Your task to perform on an android device: uninstall "Adobe Acrobat Reader: Edit PDF" Image 0: 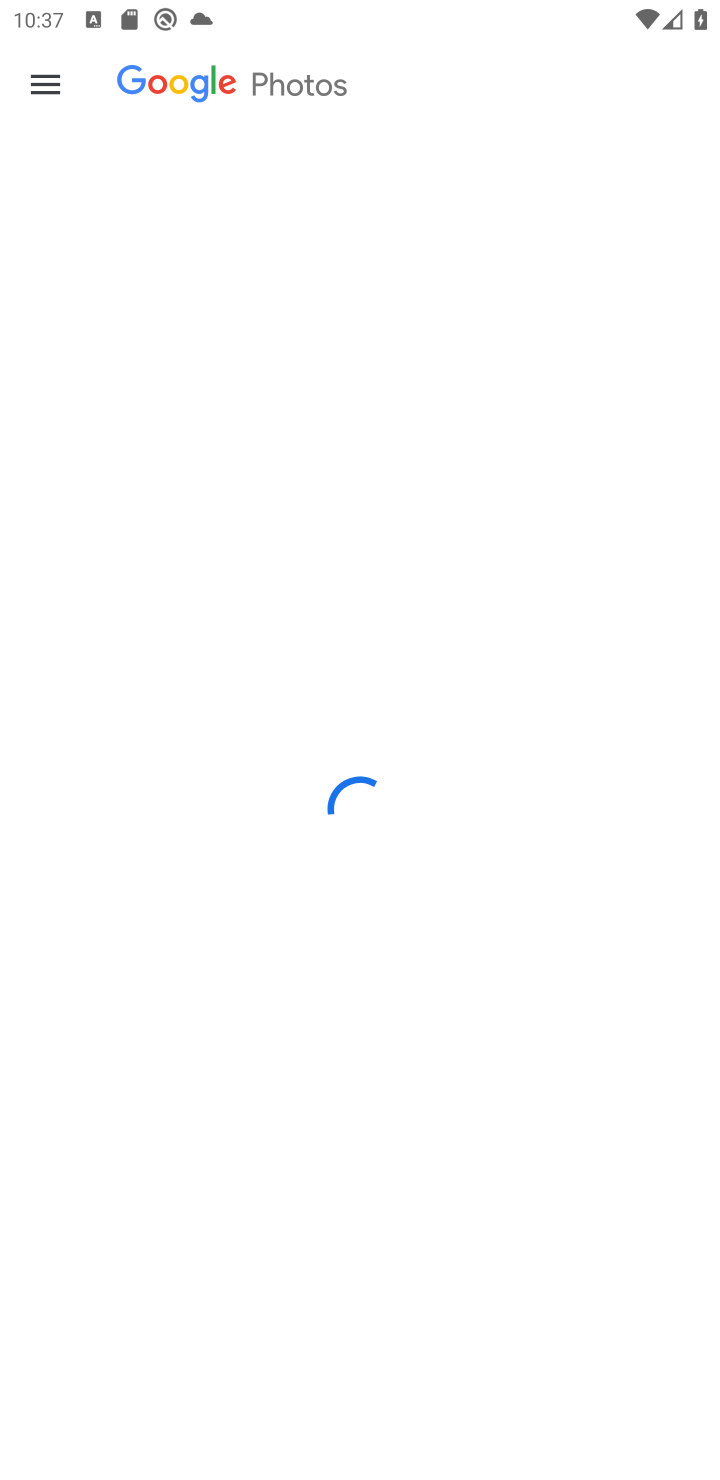
Step 0: press home button
Your task to perform on an android device: uninstall "Adobe Acrobat Reader: Edit PDF" Image 1: 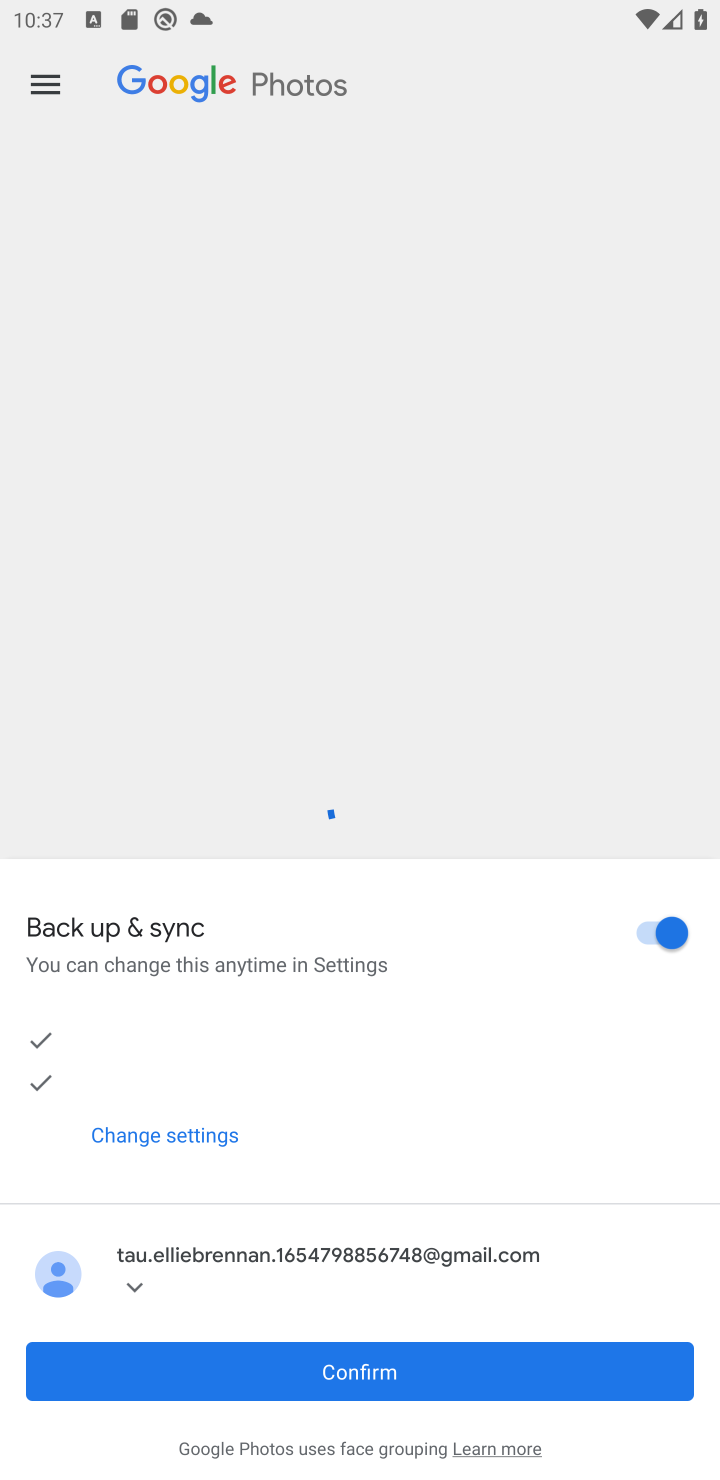
Step 1: press home button
Your task to perform on an android device: uninstall "Adobe Acrobat Reader: Edit PDF" Image 2: 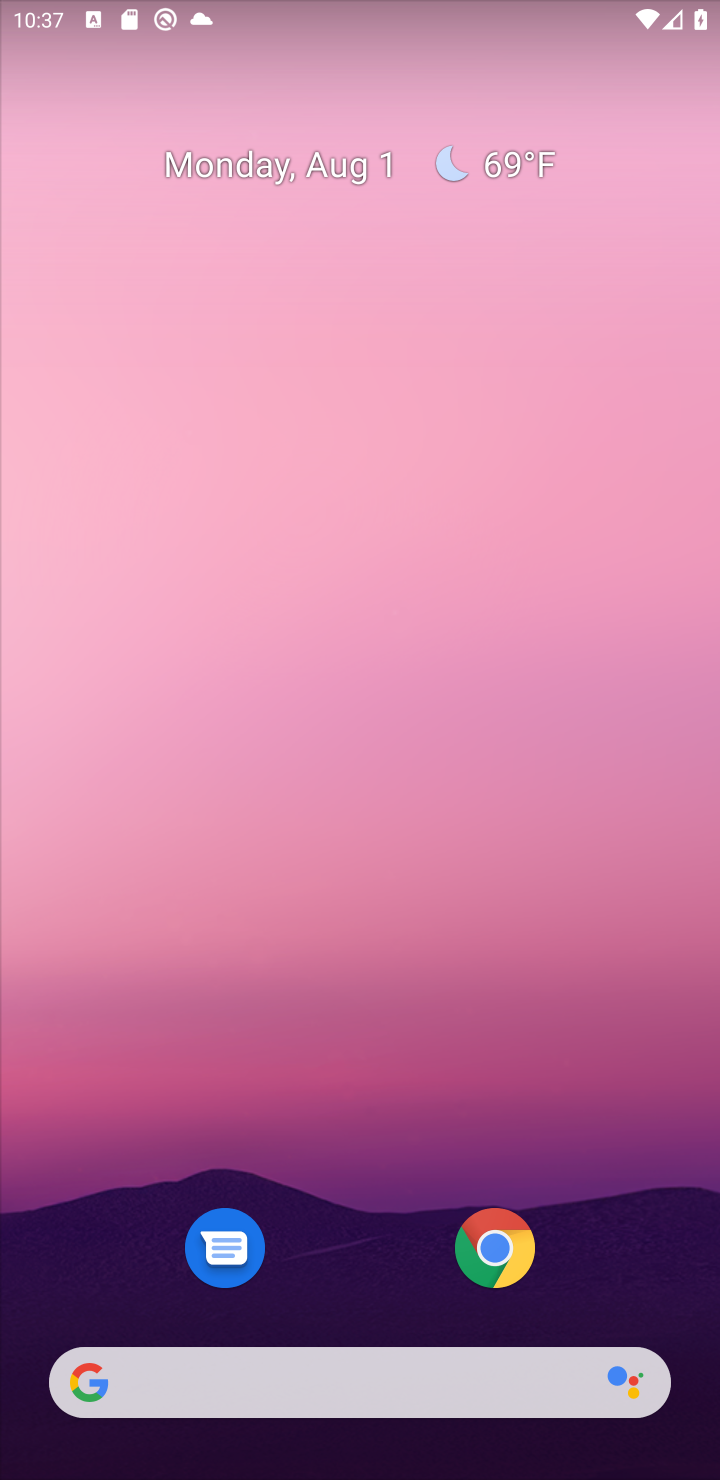
Step 2: drag from (400, 1273) to (435, 152)
Your task to perform on an android device: uninstall "Adobe Acrobat Reader: Edit PDF" Image 3: 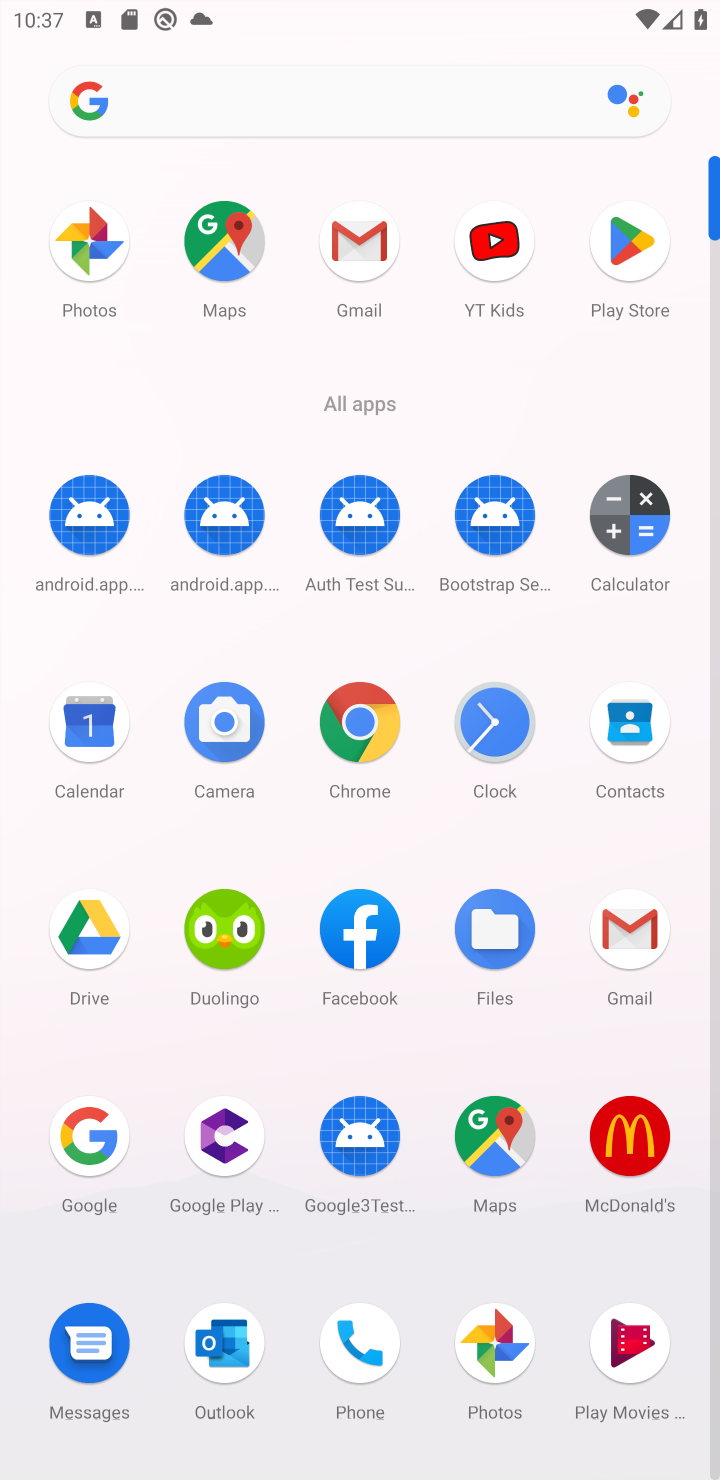
Step 3: drag from (291, 1252) to (294, 387)
Your task to perform on an android device: uninstall "Adobe Acrobat Reader: Edit PDF" Image 4: 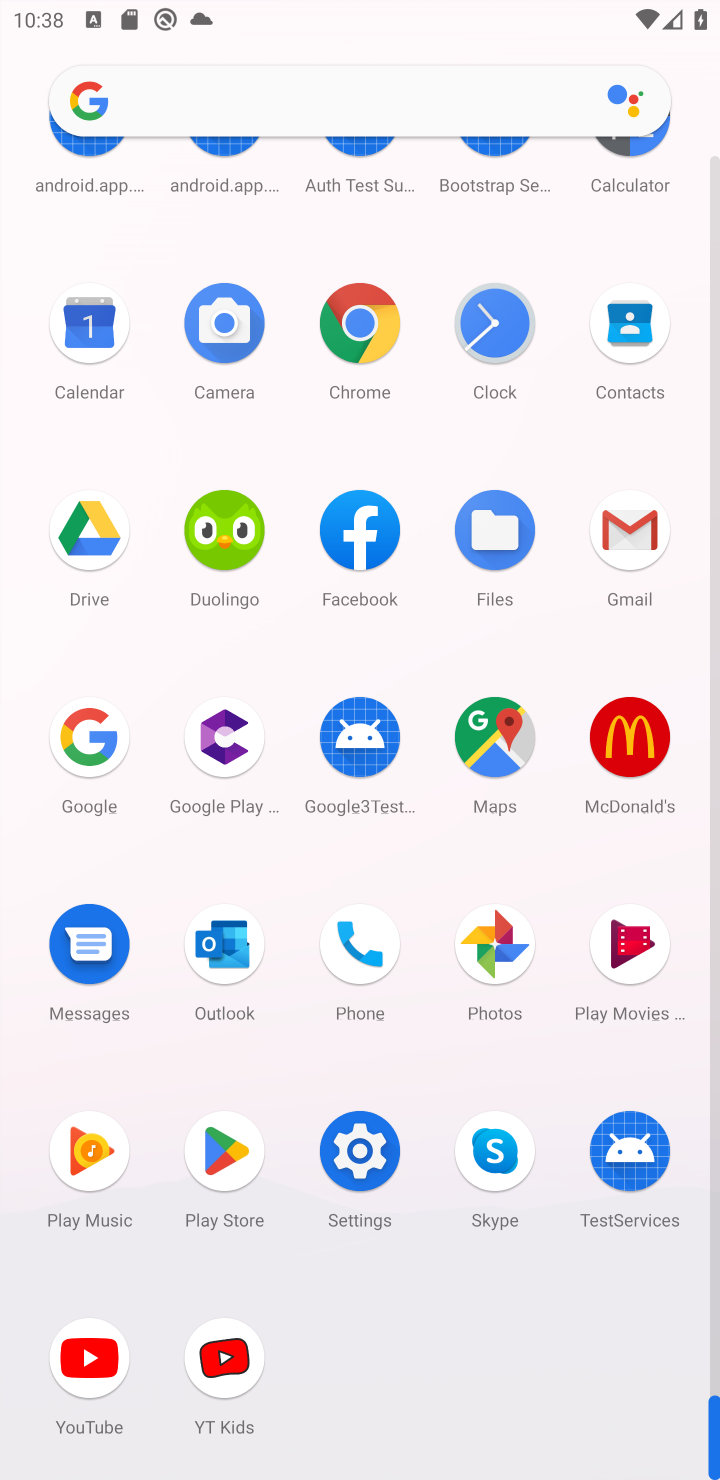
Step 4: click (214, 1150)
Your task to perform on an android device: uninstall "Adobe Acrobat Reader: Edit PDF" Image 5: 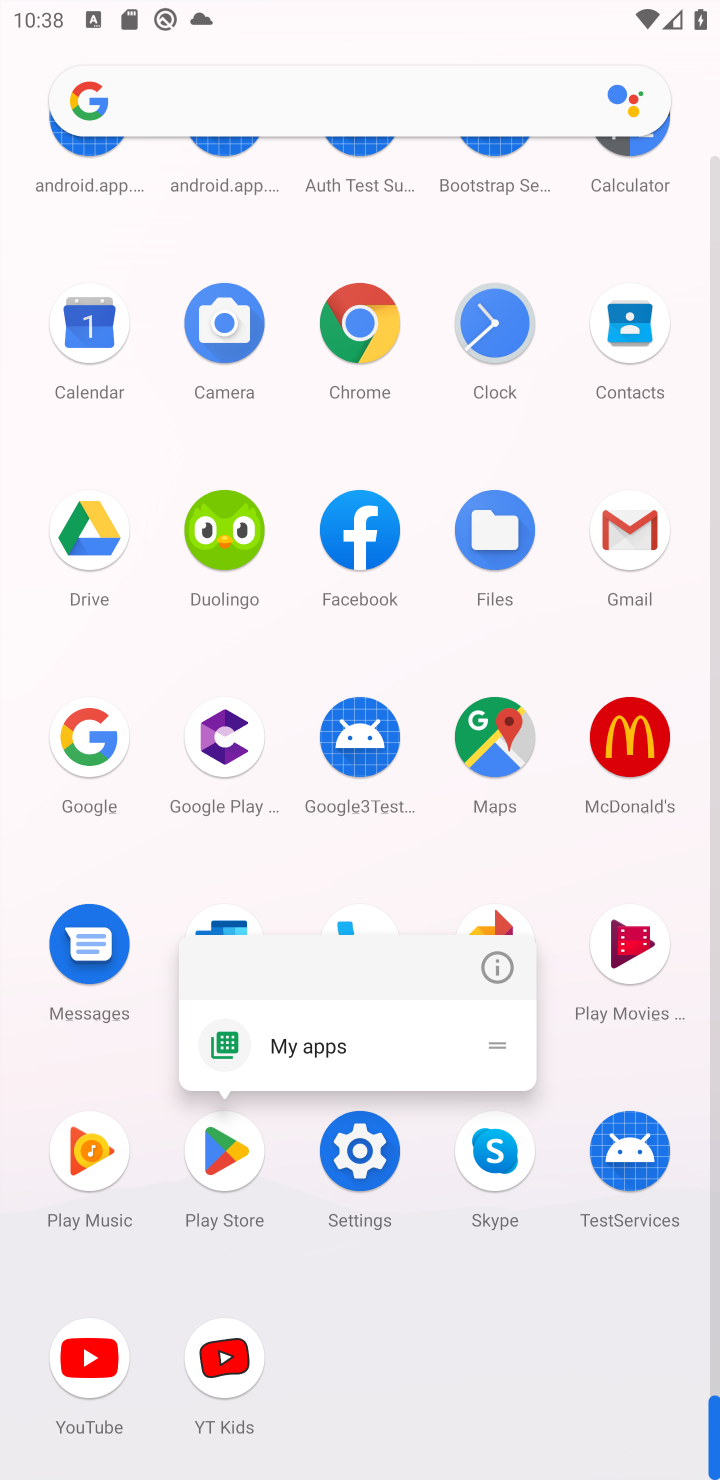
Step 5: click (214, 1150)
Your task to perform on an android device: uninstall "Adobe Acrobat Reader: Edit PDF" Image 6: 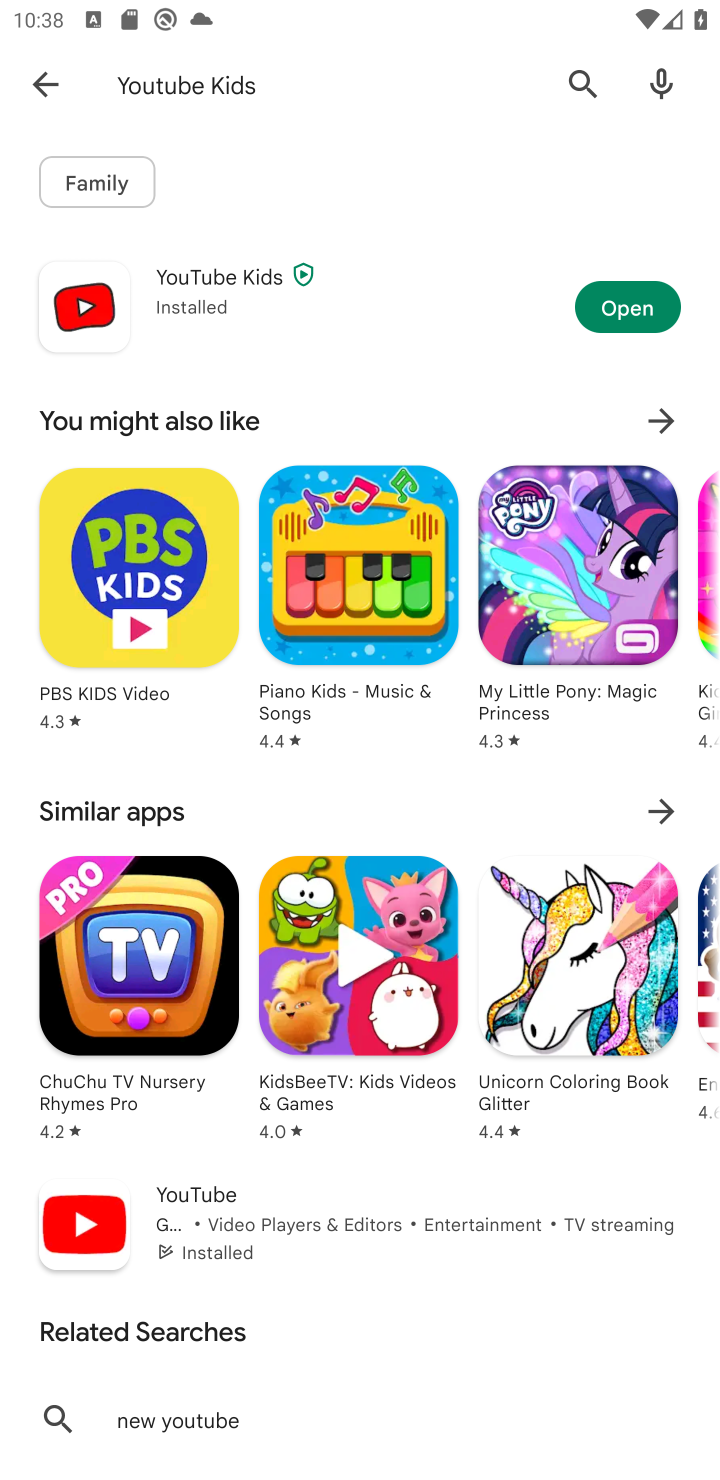
Step 6: click (588, 81)
Your task to perform on an android device: uninstall "Adobe Acrobat Reader: Edit PDF" Image 7: 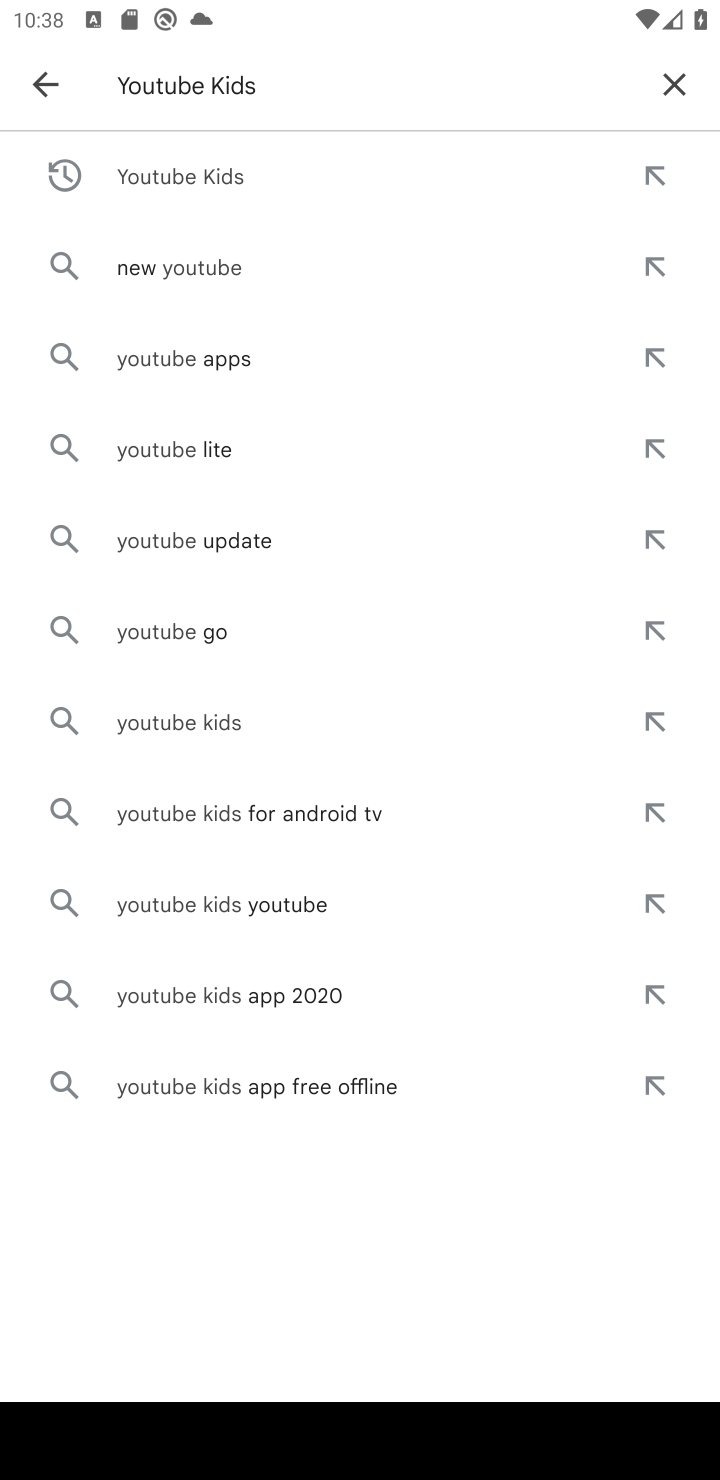
Step 7: click (674, 86)
Your task to perform on an android device: uninstall "Adobe Acrobat Reader: Edit PDF" Image 8: 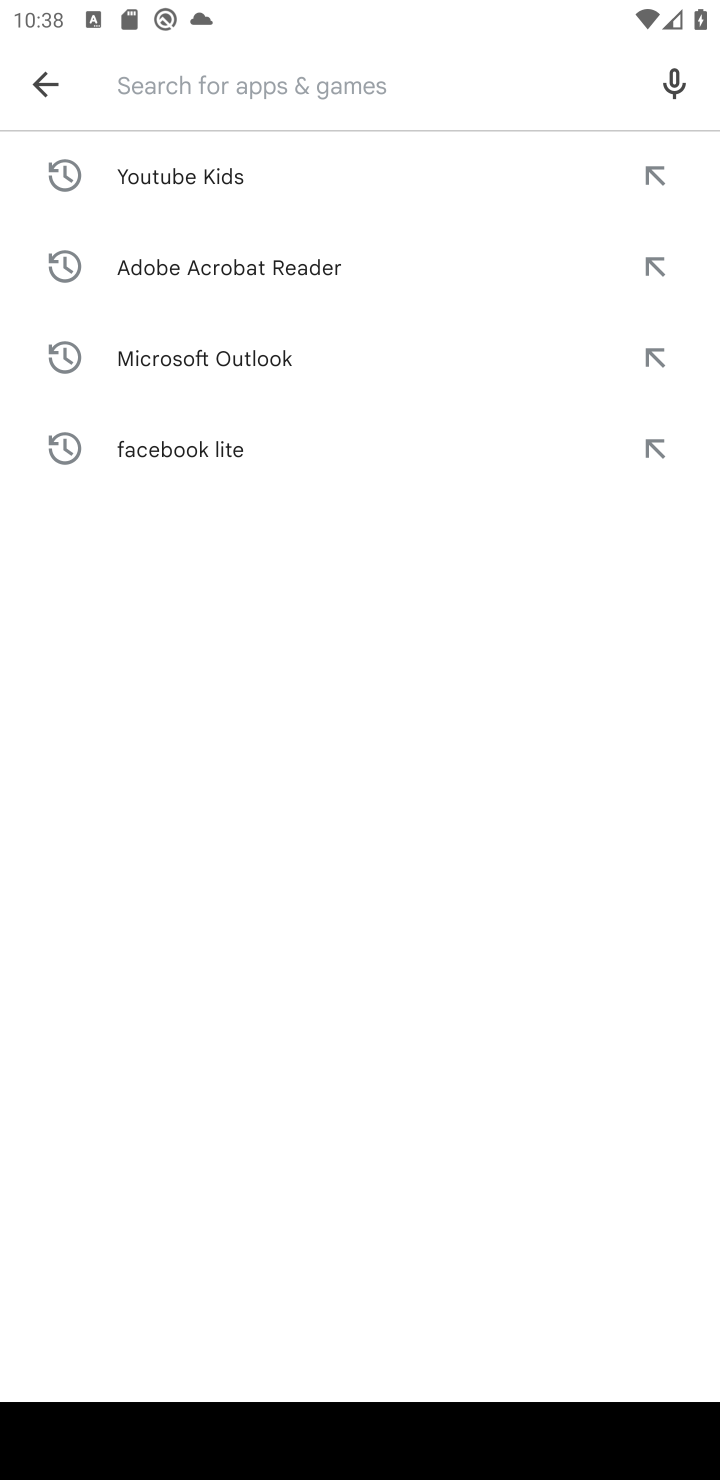
Step 8: type "Adobe Acrobat Reader: Edit PDF"
Your task to perform on an android device: uninstall "Adobe Acrobat Reader: Edit PDF" Image 9: 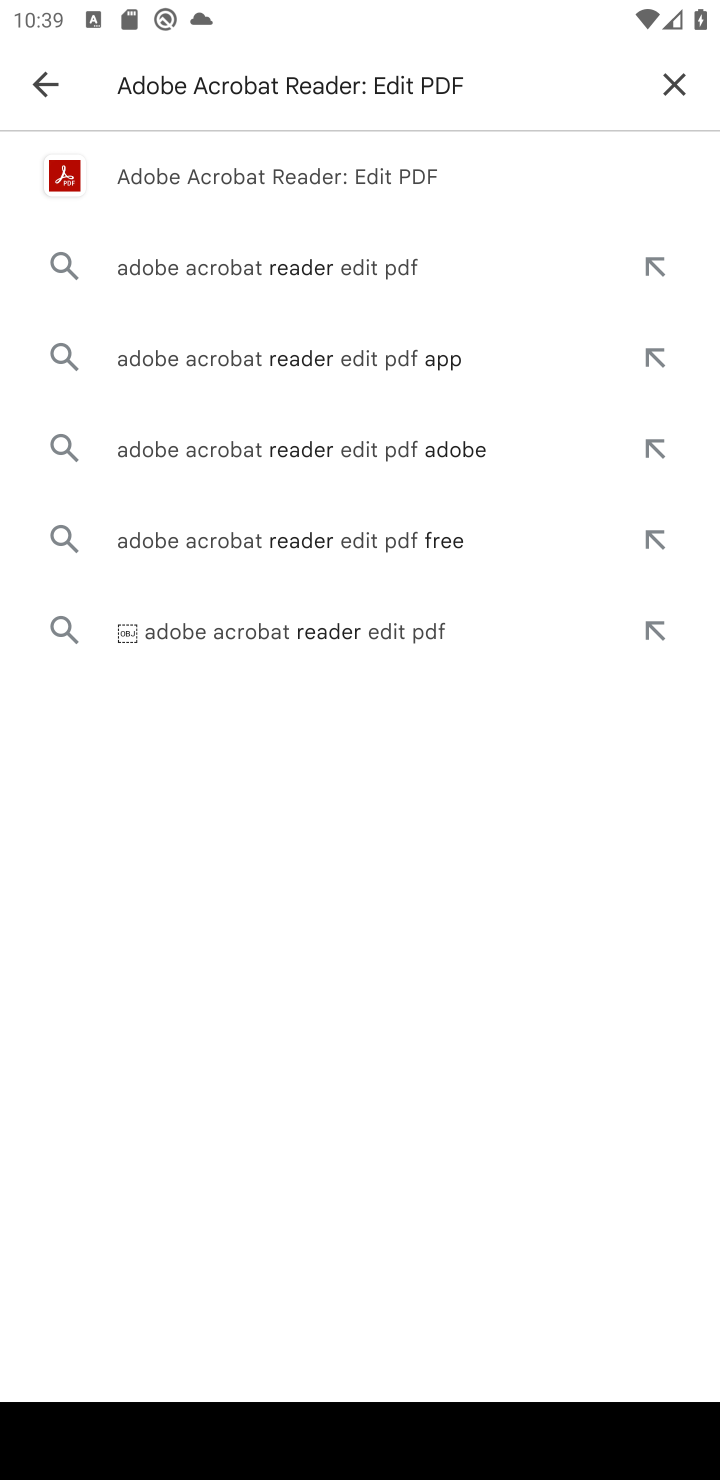
Step 9: click (339, 178)
Your task to perform on an android device: uninstall "Adobe Acrobat Reader: Edit PDF" Image 10: 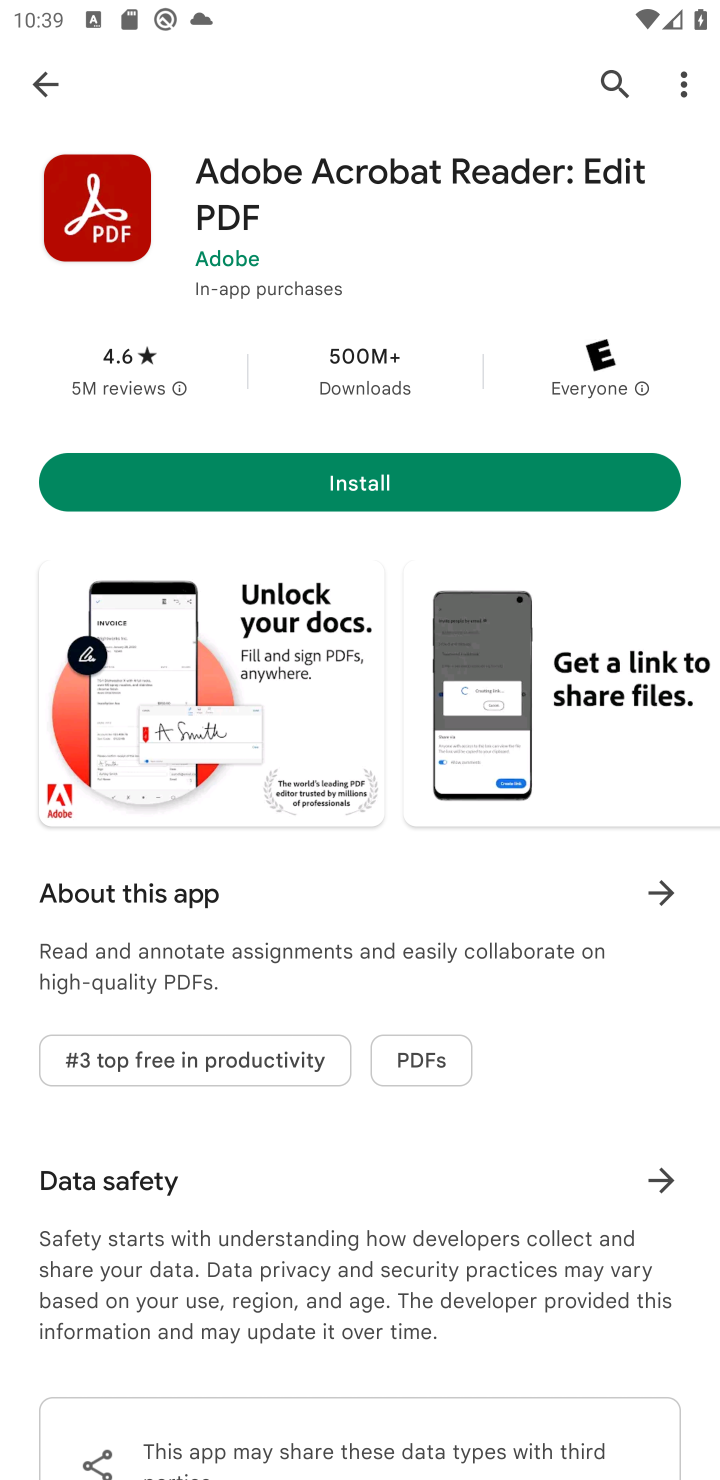
Step 10: task complete